Your task to perform on an android device: turn on priority inbox in the gmail app Image 0: 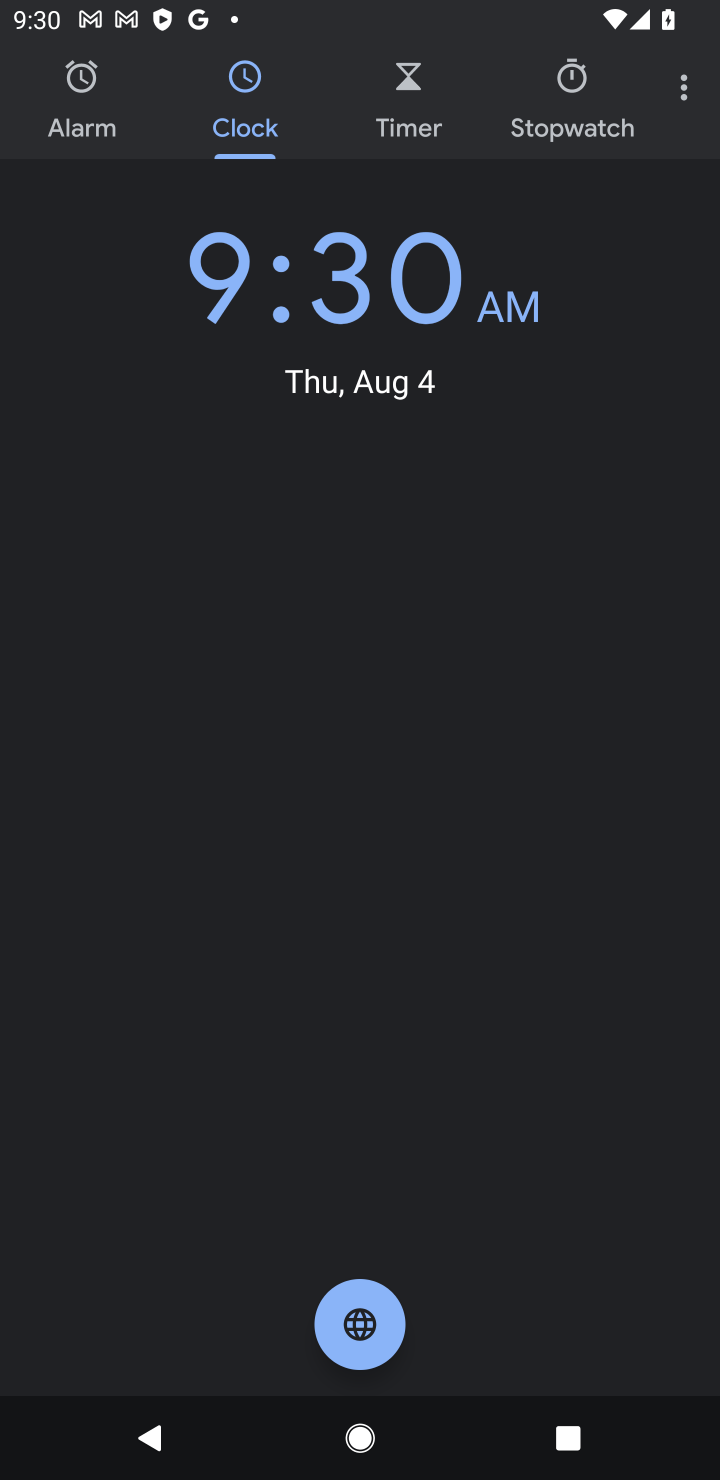
Step 0: press home button
Your task to perform on an android device: turn on priority inbox in the gmail app Image 1: 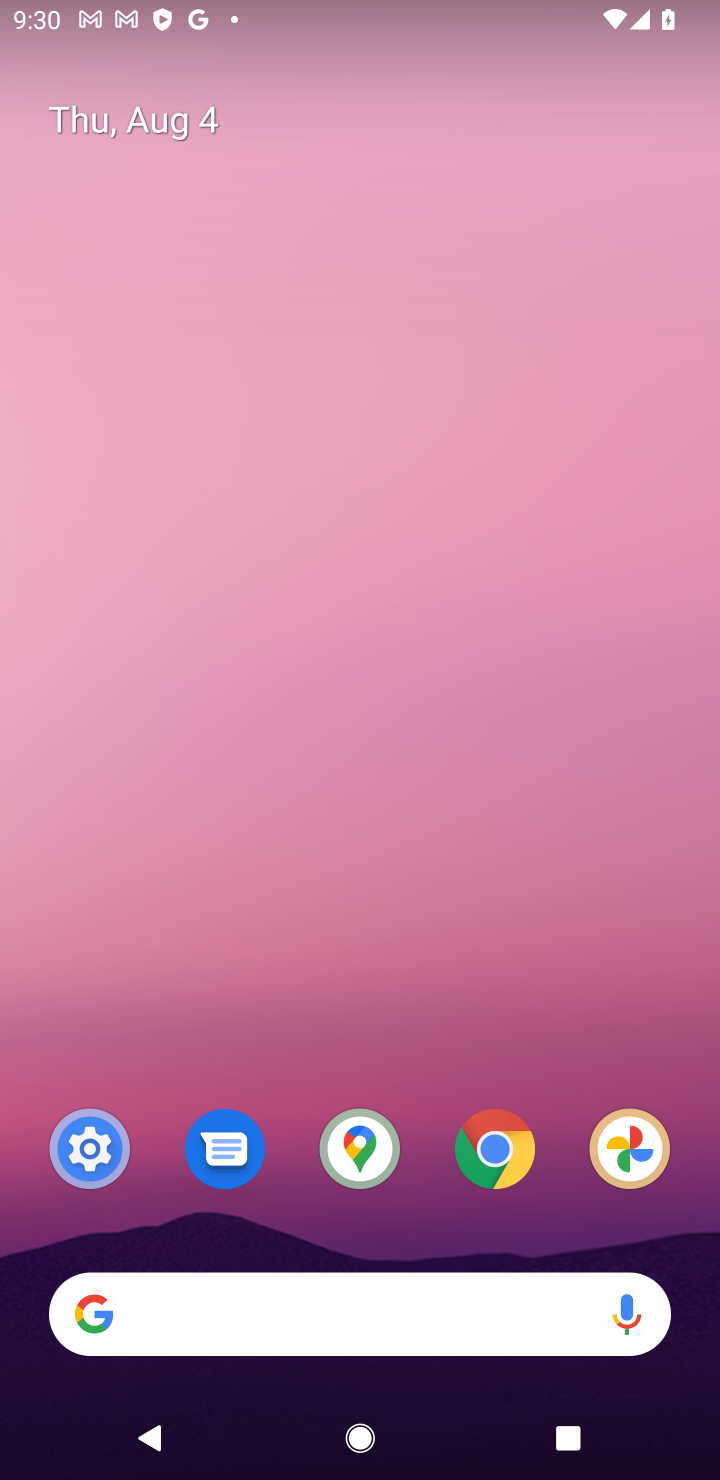
Step 1: drag from (577, 1218) to (472, 261)
Your task to perform on an android device: turn on priority inbox in the gmail app Image 2: 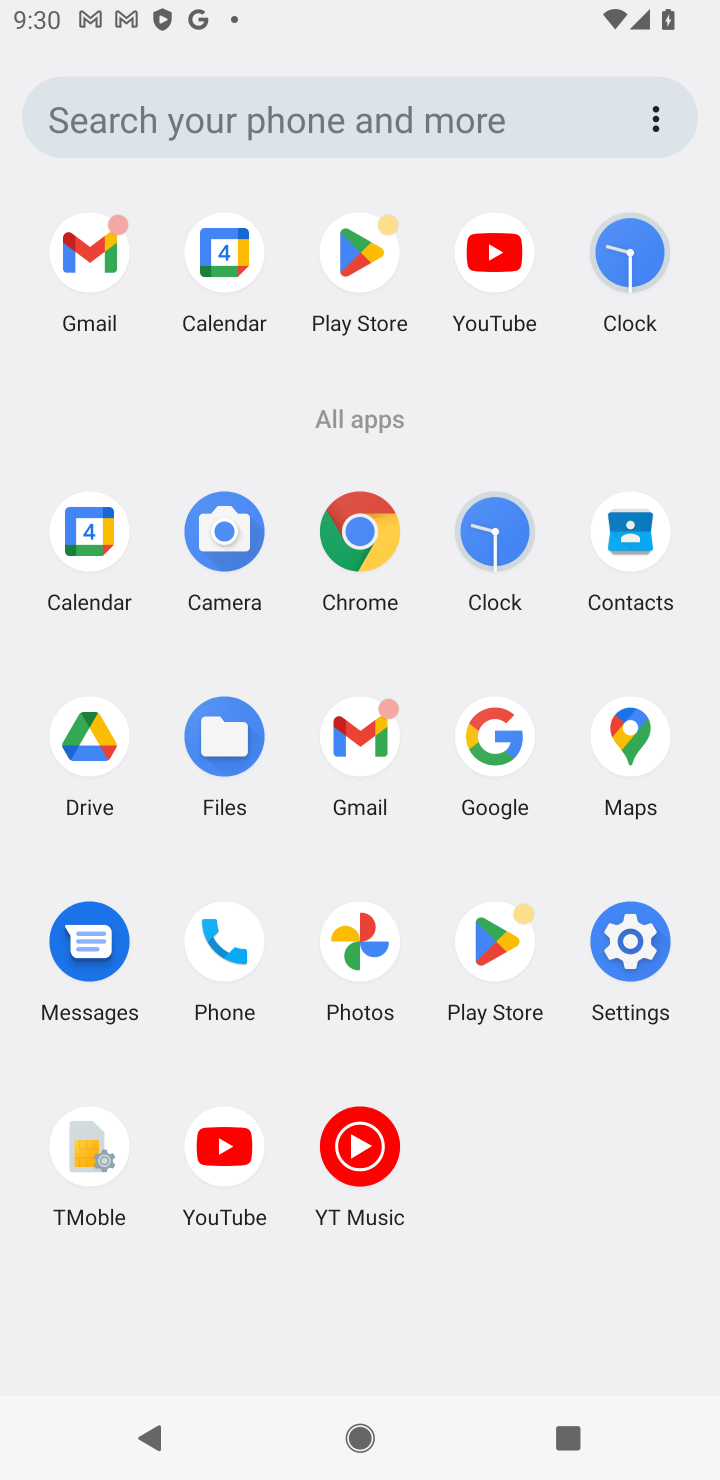
Step 2: click (361, 741)
Your task to perform on an android device: turn on priority inbox in the gmail app Image 3: 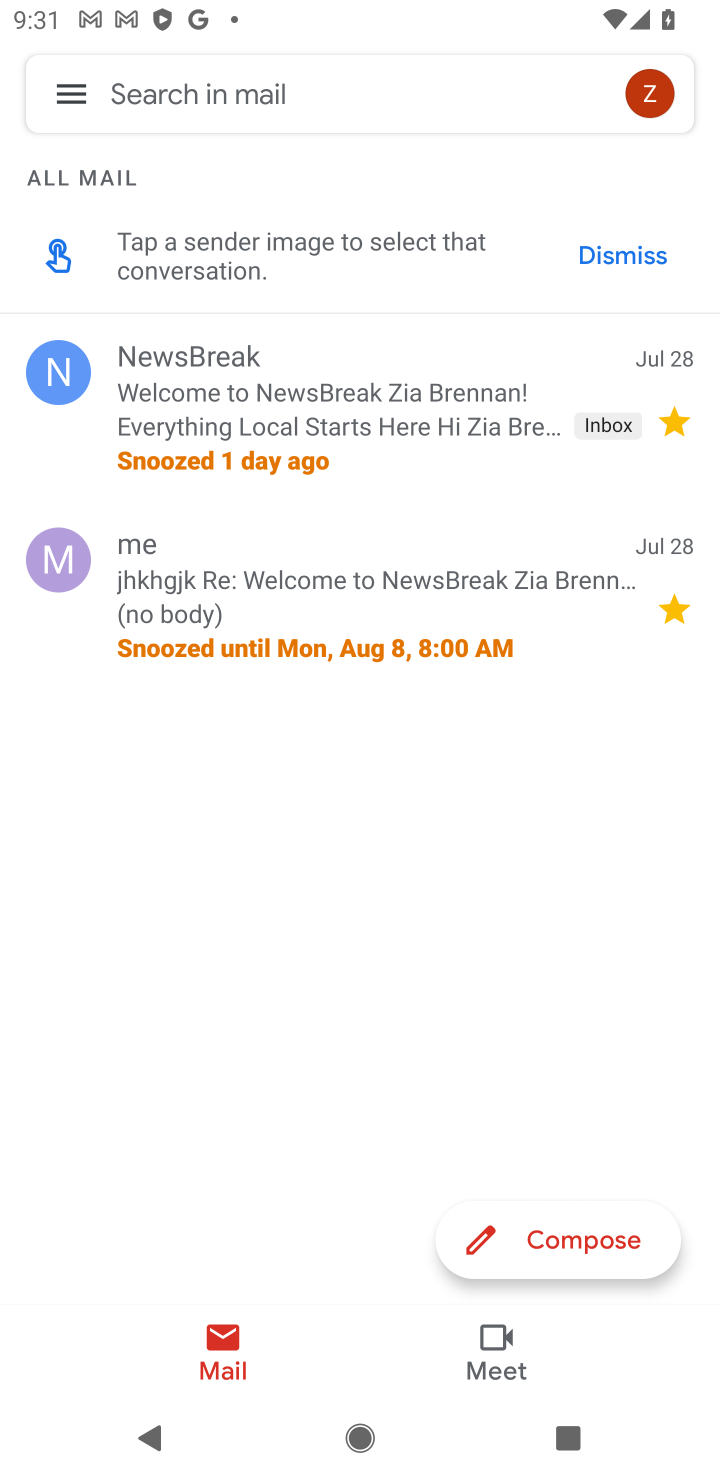
Step 3: click (67, 104)
Your task to perform on an android device: turn on priority inbox in the gmail app Image 4: 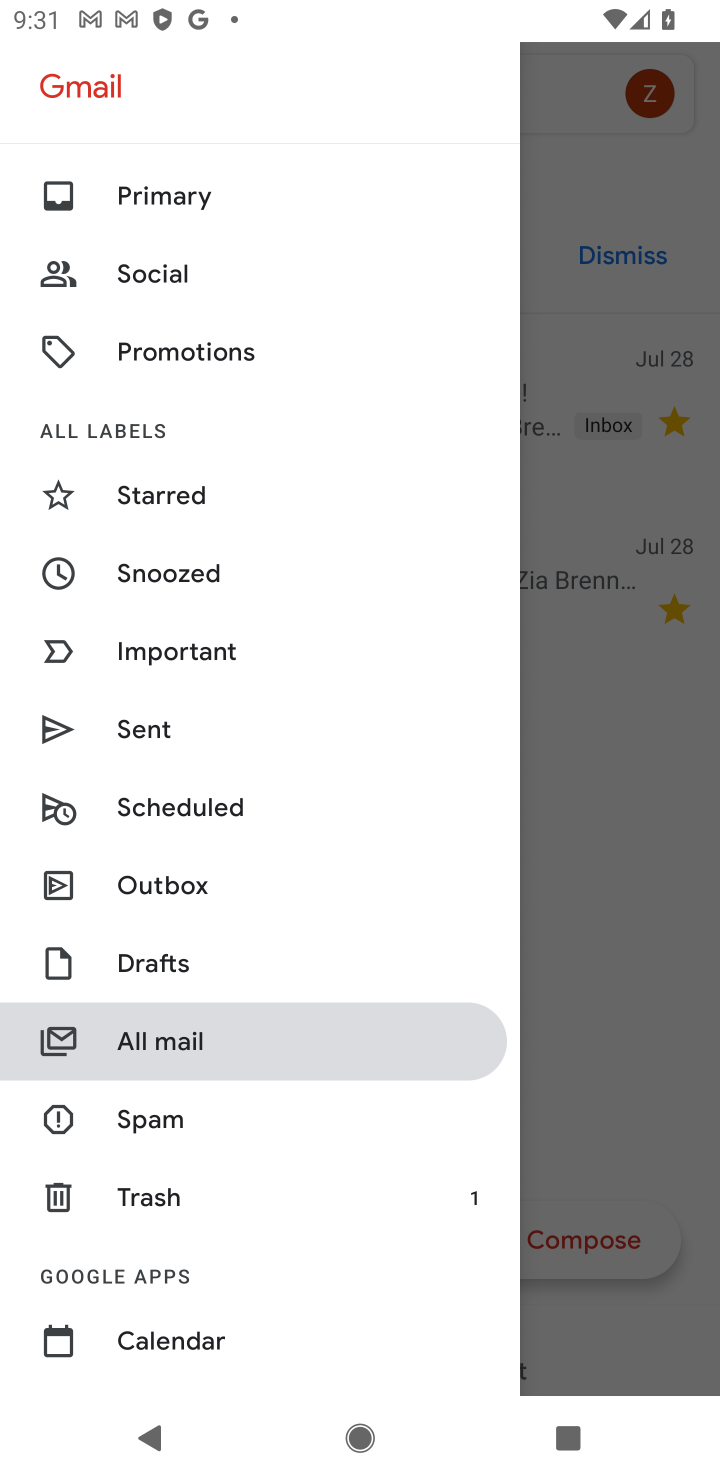
Step 4: drag from (327, 1244) to (249, 374)
Your task to perform on an android device: turn on priority inbox in the gmail app Image 5: 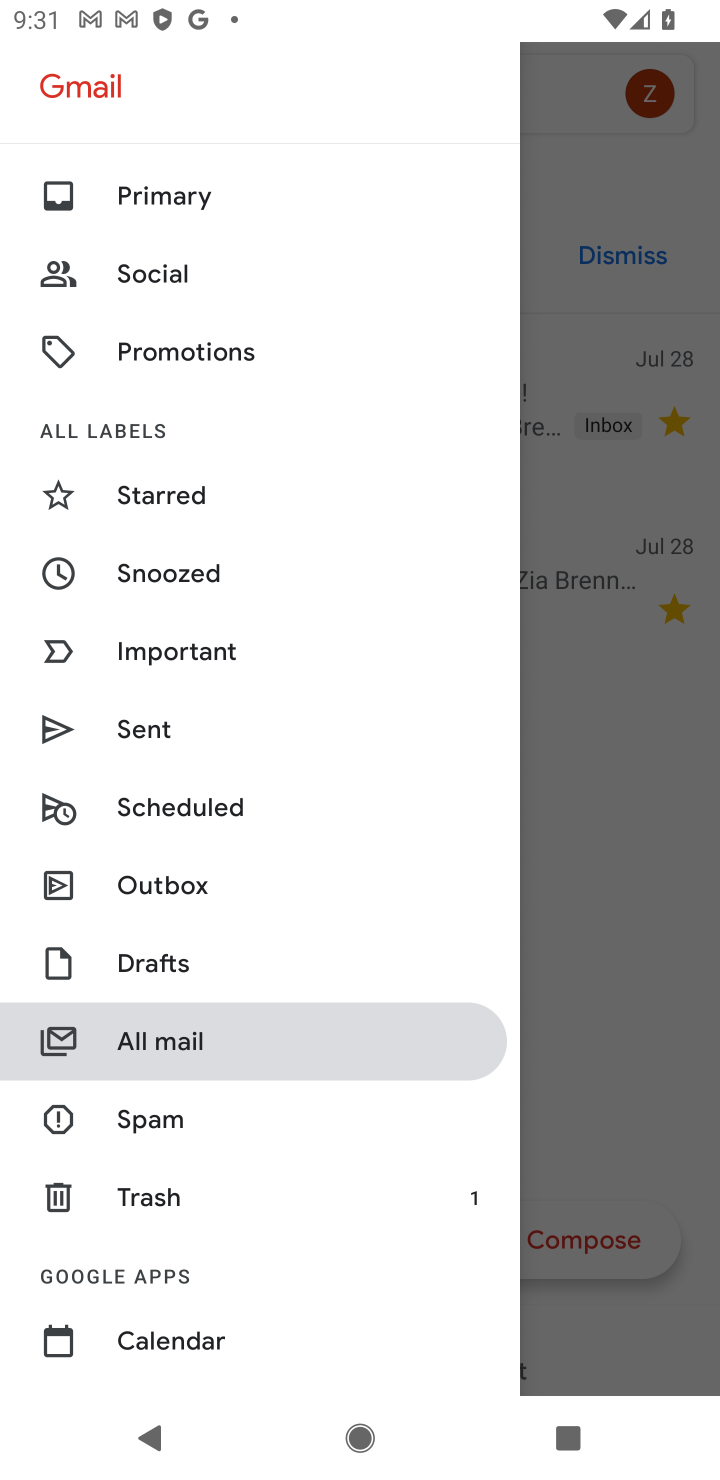
Step 5: drag from (256, 1264) to (385, 519)
Your task to perform on an android device: turn on priority inbox in the gmail app Image 6: 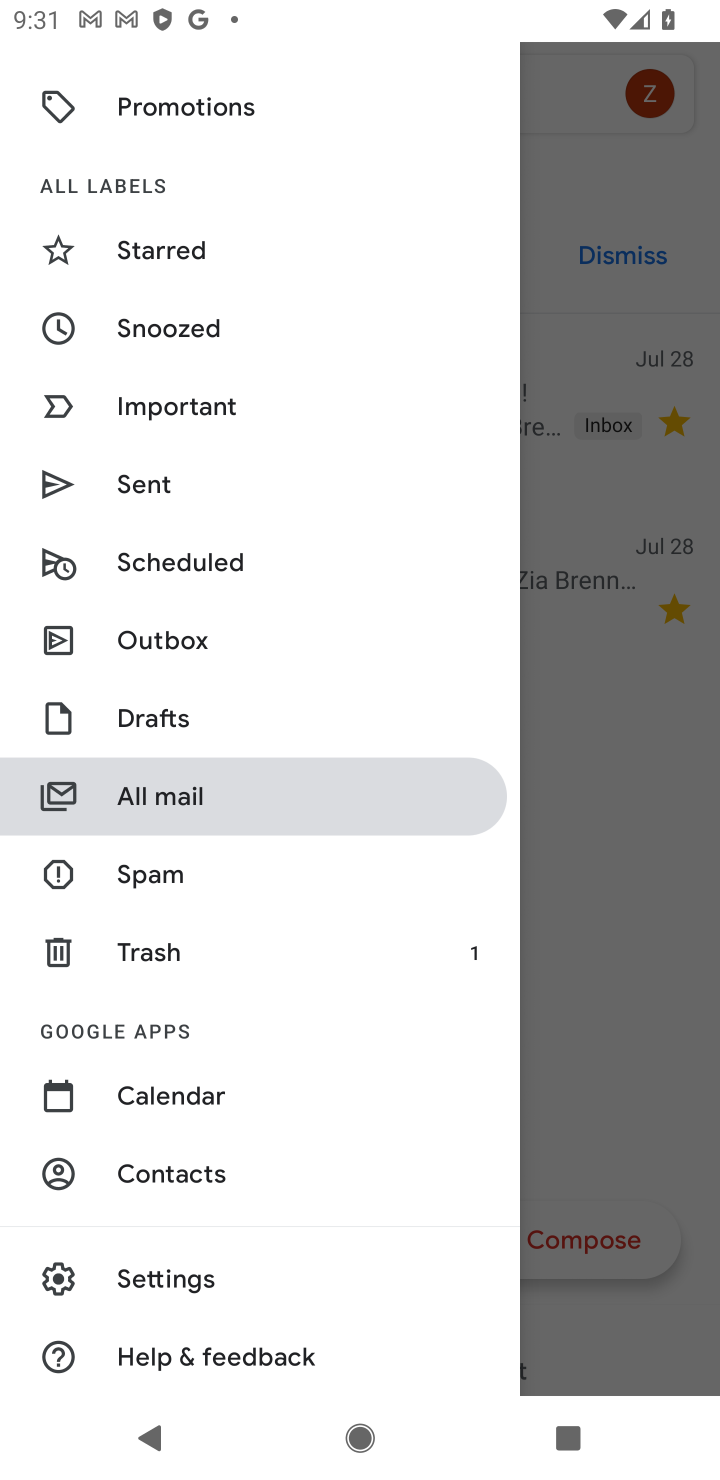
Step 6: click (155, 1288)
Your task to perform on an android device: turn on priority inbox in the gmail app Image 7: 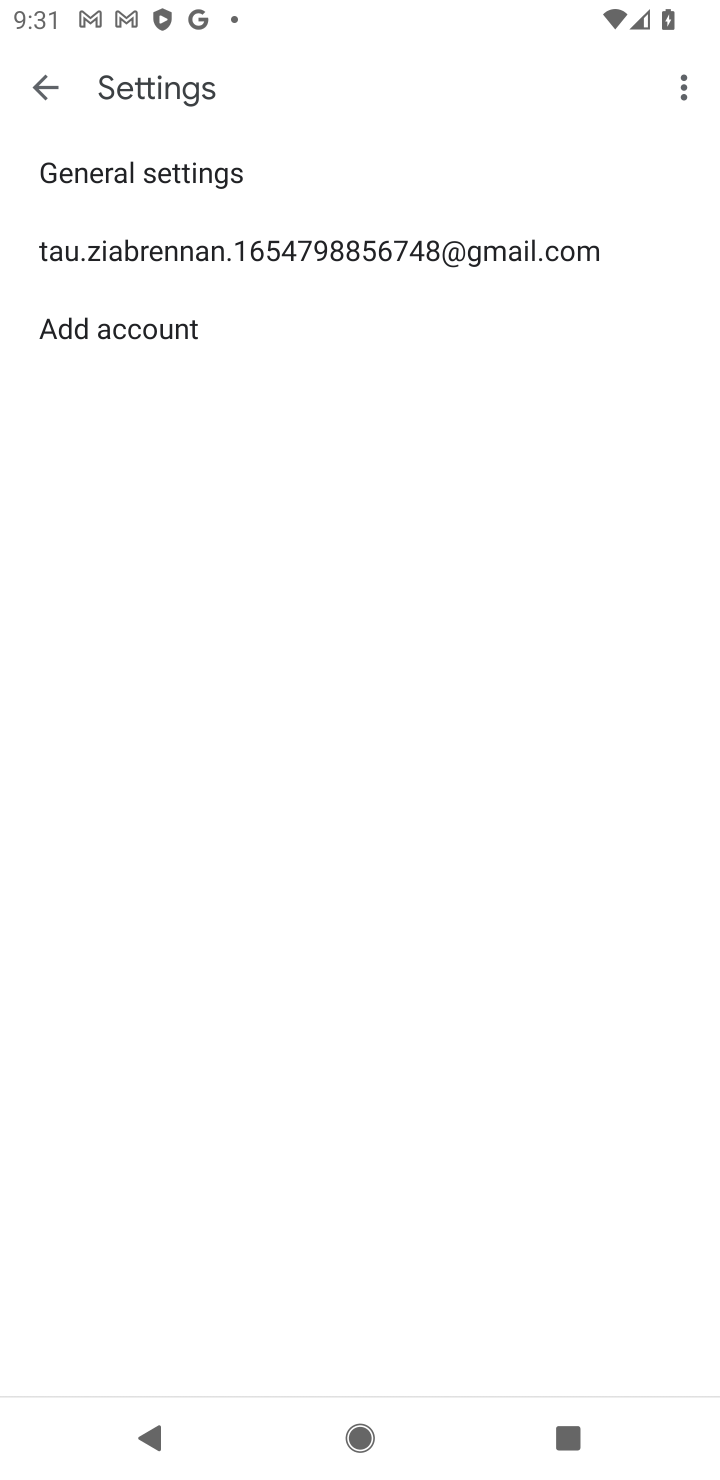
Step 7: click (326, 248)
Your task to perform on an android device: turn on priority inbox in the gmail app Image 8: 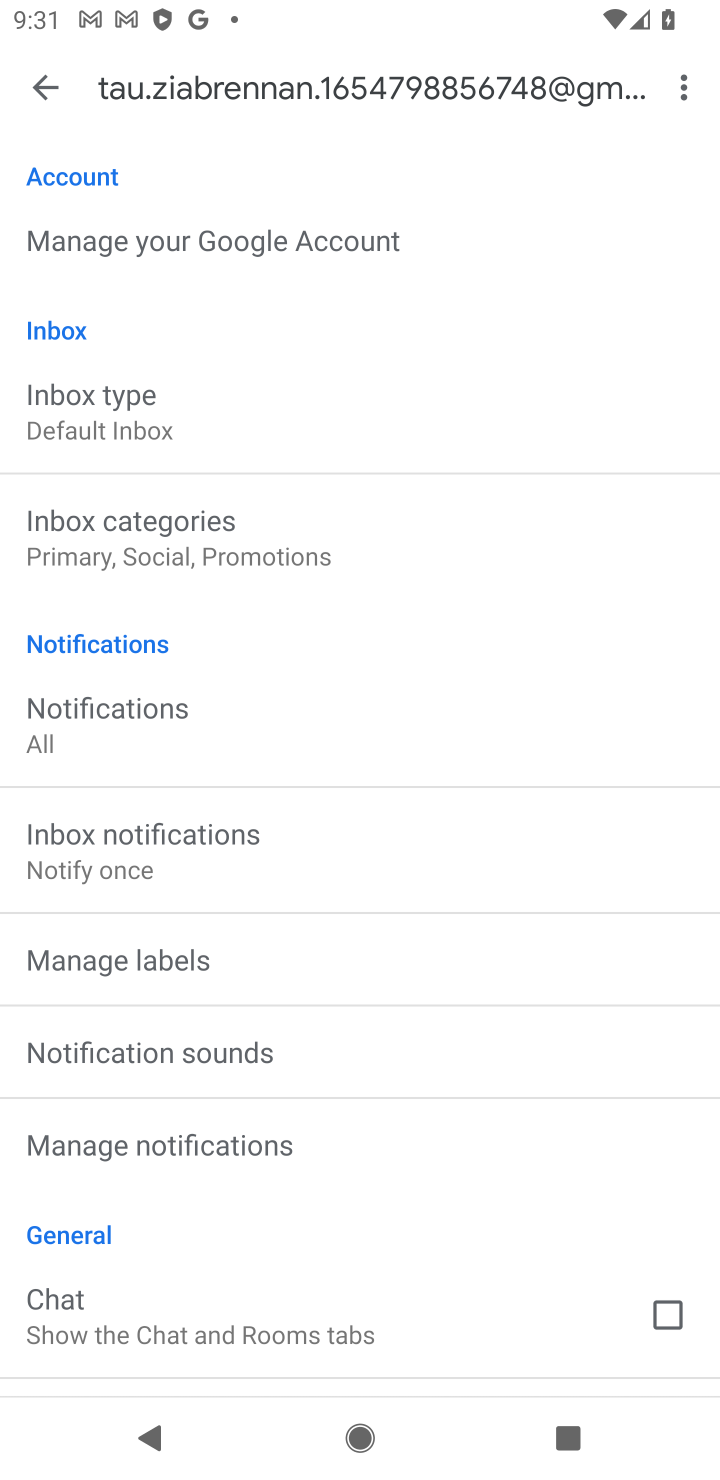
Step 8: click (129, 399)
Your task to perform on an android device: turn on priority inbox in the gmail app Image 9: 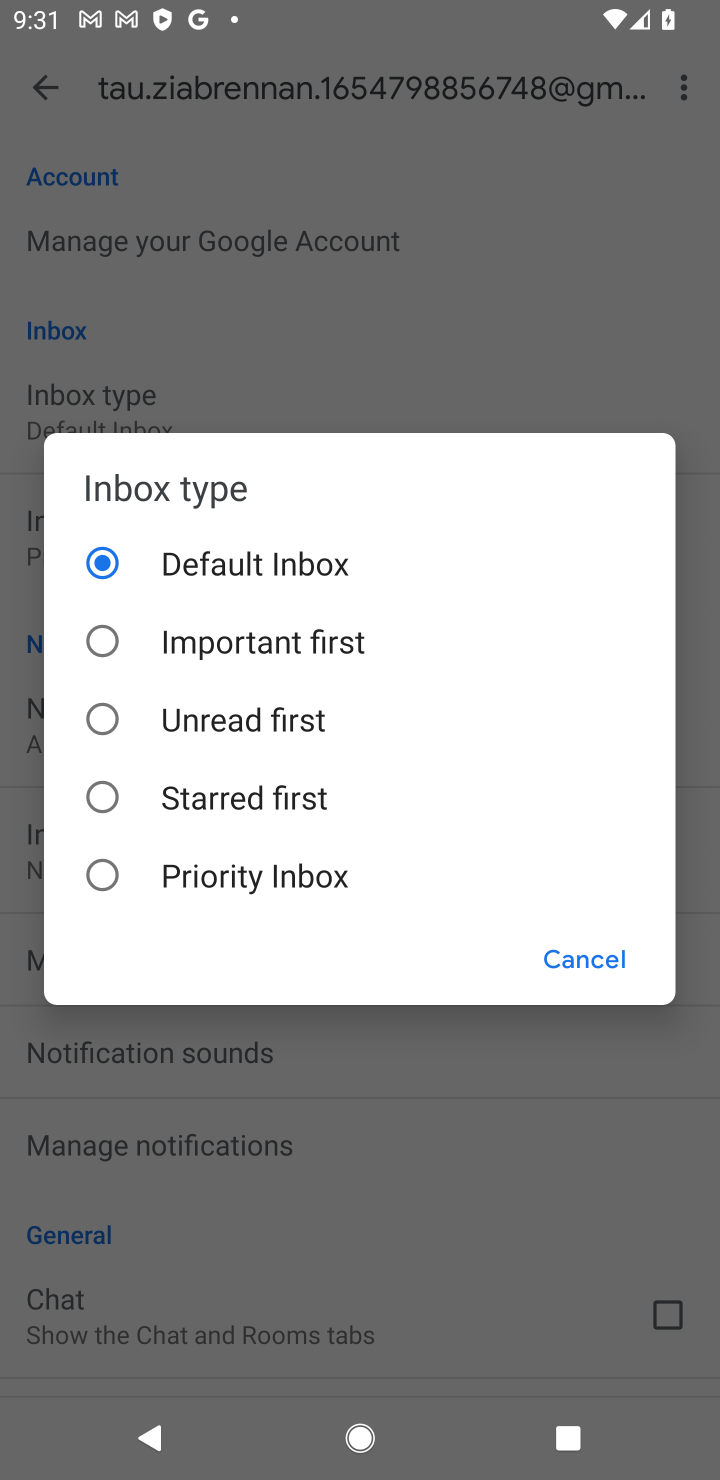
Step 9: click (99, 873)
Your task to perform on an android device: turn on priority inbox in the gmail app Image 10: 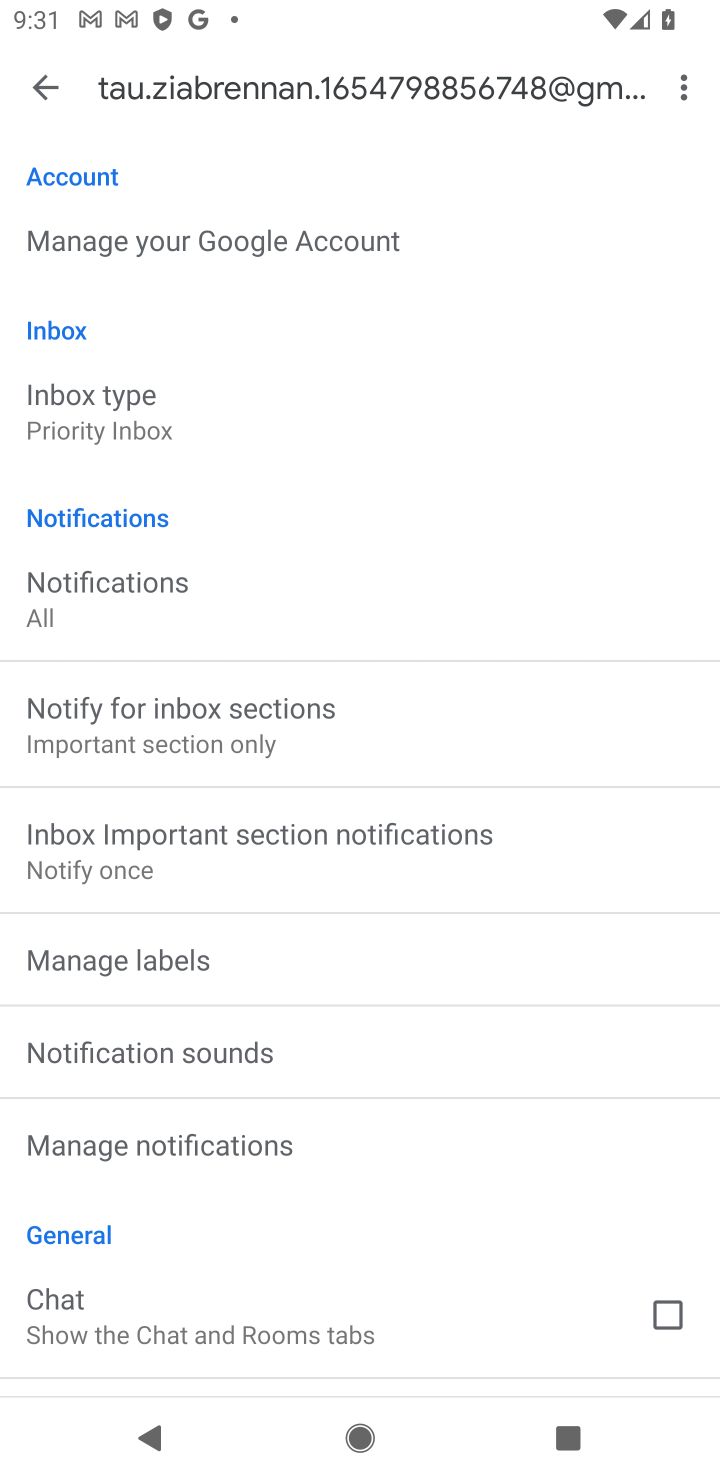
Step 10: task complete